Your task to perform on an android device: check out phone information Image 0: 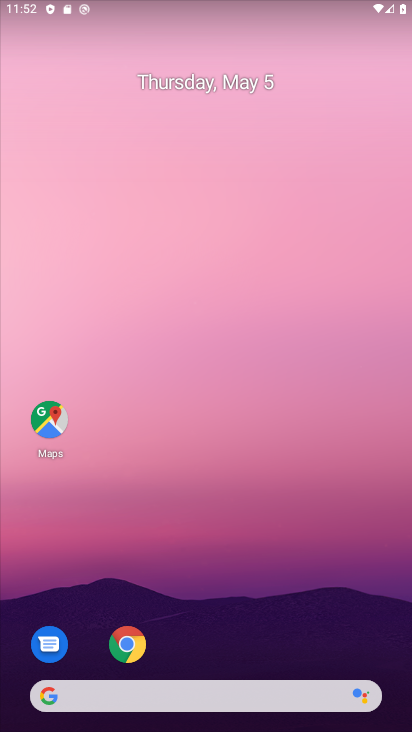
Step 0: drag from (138, 318) to (234, 122)
Your task to perform on an android device: check out phone information Image 1: 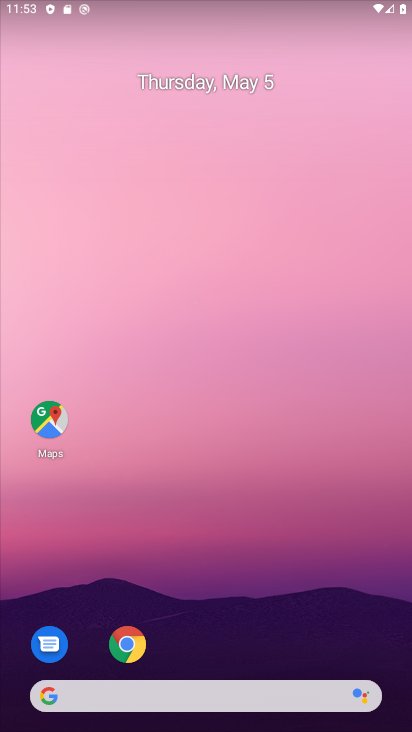
Step 1: drag from (19, 676) to (212, 133)
Your task to perform on an android device: check out phone information Image 2: 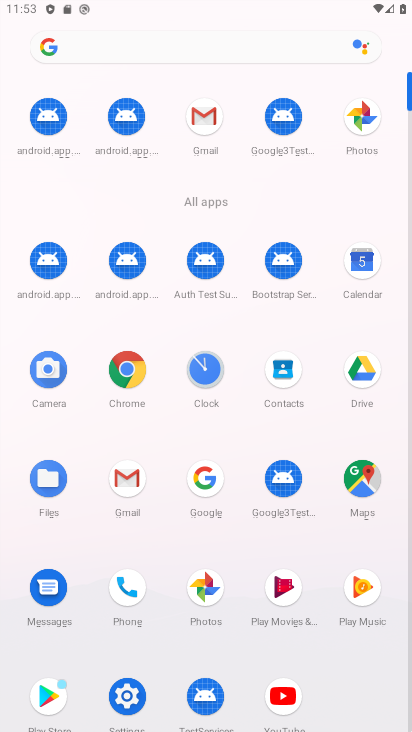
Step 2: click (123, 599)
Your task to perform on an android device: check out phone information Image 3: 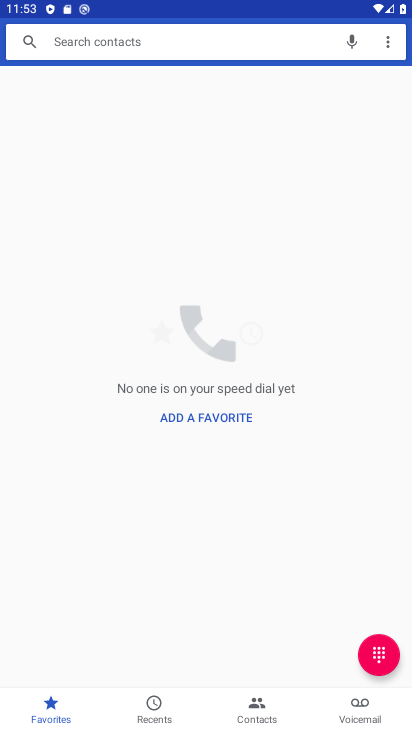
Step 3: click (393, 48)
Your task to perform on an android device: check out phone information Image 4: 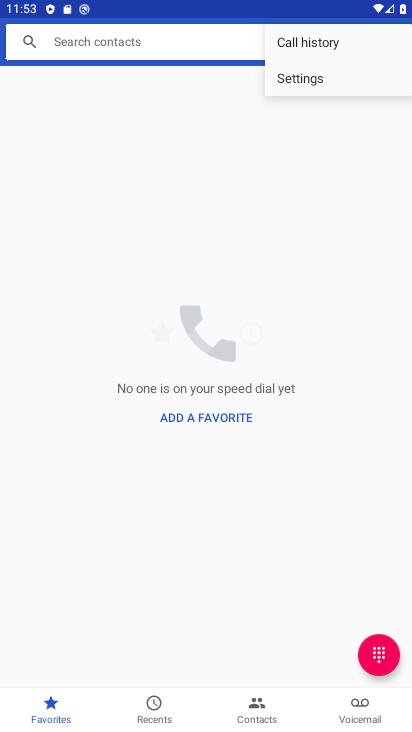
Step 4: click (339, 70)
Your task to perform on an android device: check out phone information Image 5: 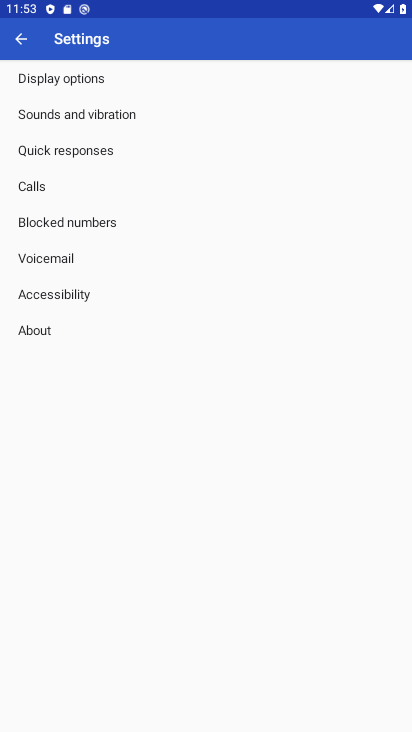
Step 5: click (111, 74)
Your task to perform on an android device: check out phone information Image 6: 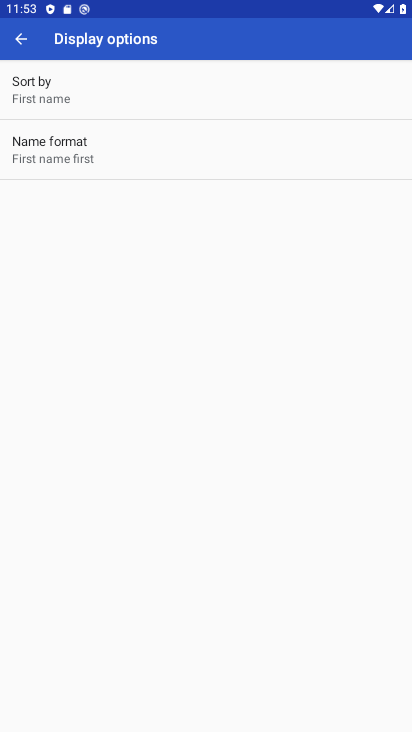
Step 6: task complete